Your task to perform on an android device: set the timer Image 0: 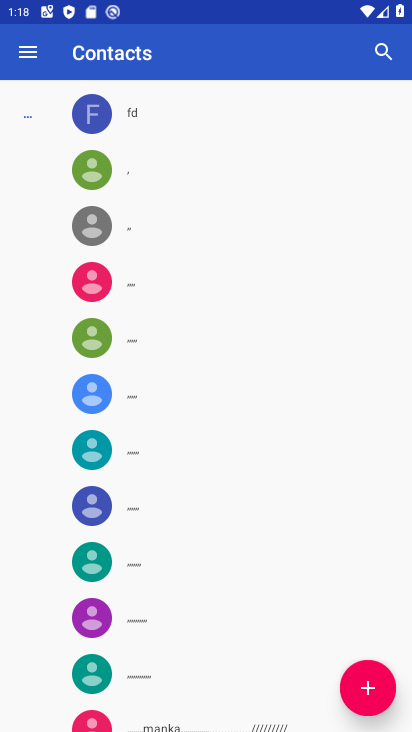
Step 0: press home button
Your task to perform on an android device: set the timer Image 1: 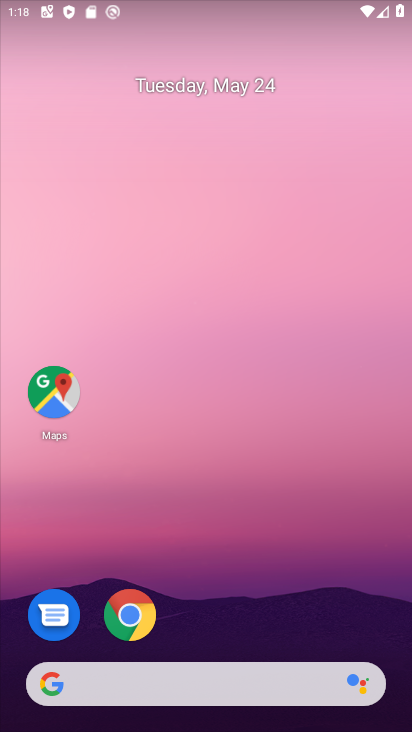
Step 1: drag from (214, 149) to (214, 44)
Your task to perform on an android device: set the timer Image 2: 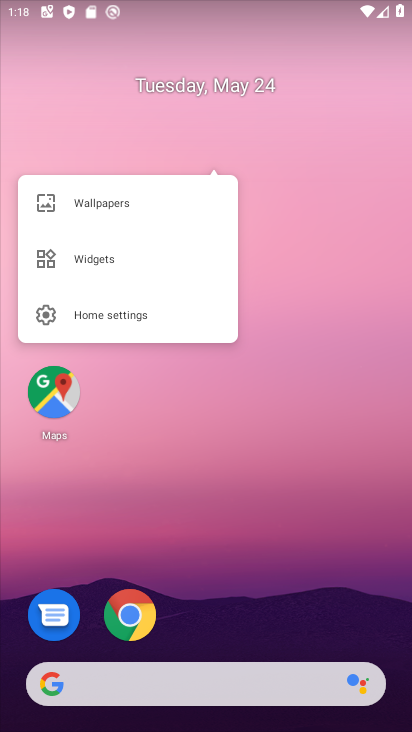
Step 2: click (248, 612)
Your task to perform on an android device: set the timer Image 3: 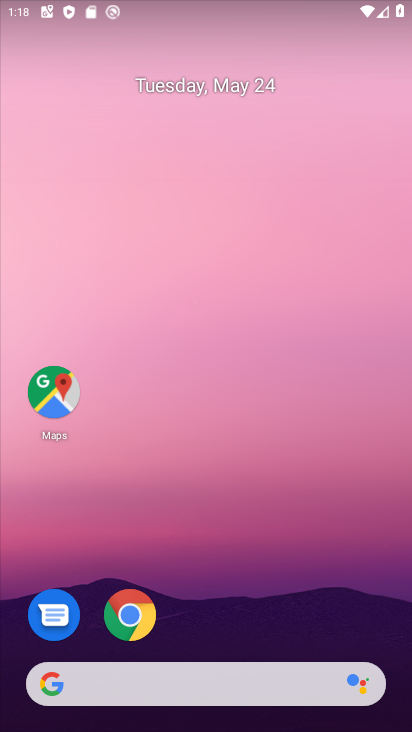
Step 3: drag from (215, 634) to (236, 59)
Your task to perform on an android device: set the timer Image 4: 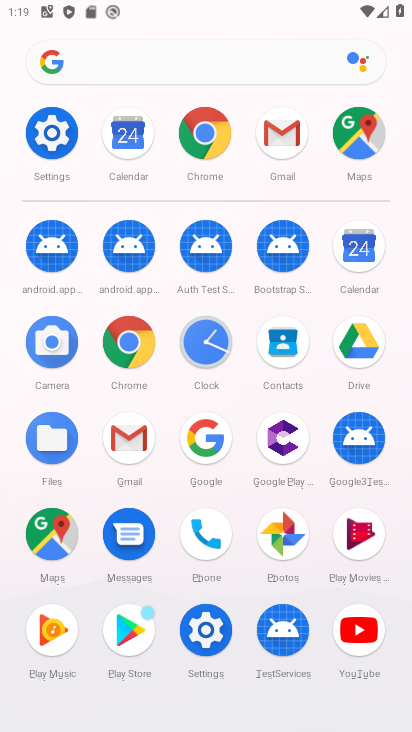
Step 4: click (200, 333)
Your task to perform on an android device: set the timer Image 5: 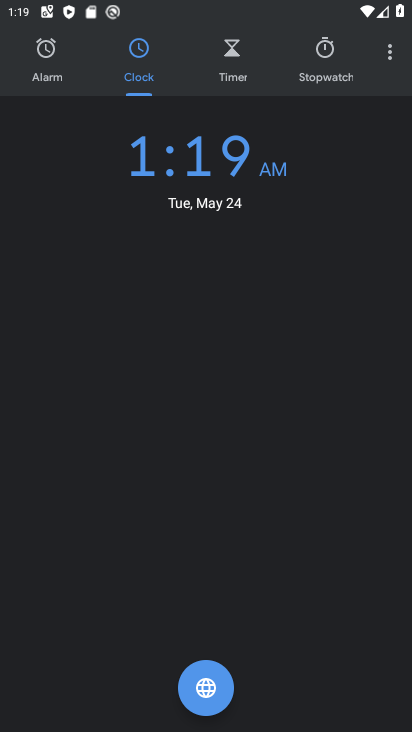
Step 5: click (227, 54)
Your task to perform on an android device: set the timer Image 6: 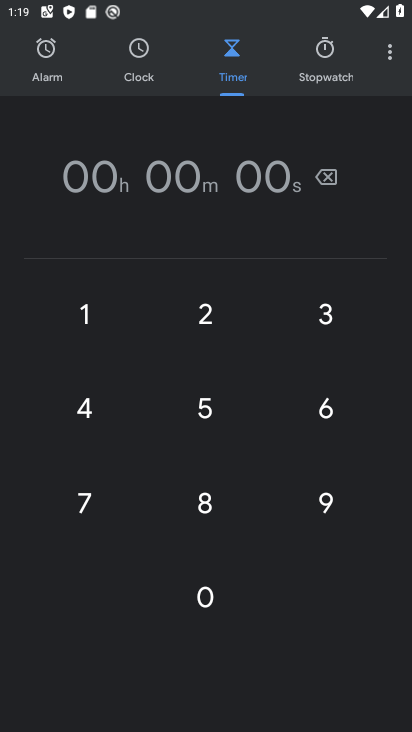
Step 6: click (206, 311)
Your task to perform on an android device: set the timer Image 7: 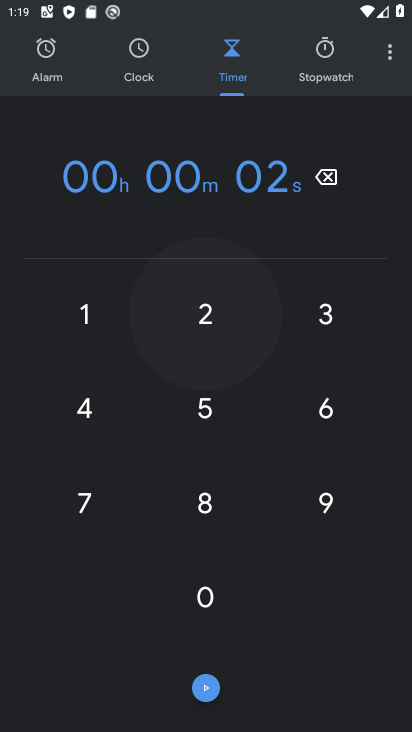
Step 7: click (215, 594)
Your task to perform on an android device: set the timer Image 8: 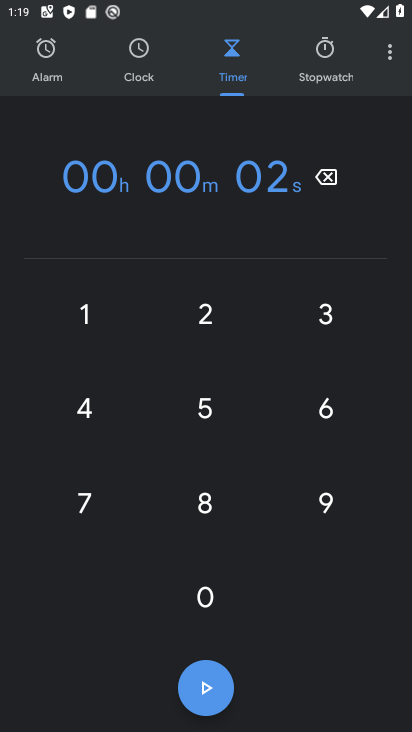
Step 8: click (215, 594)
Your task to perform on an android device: set the timer Image 9: 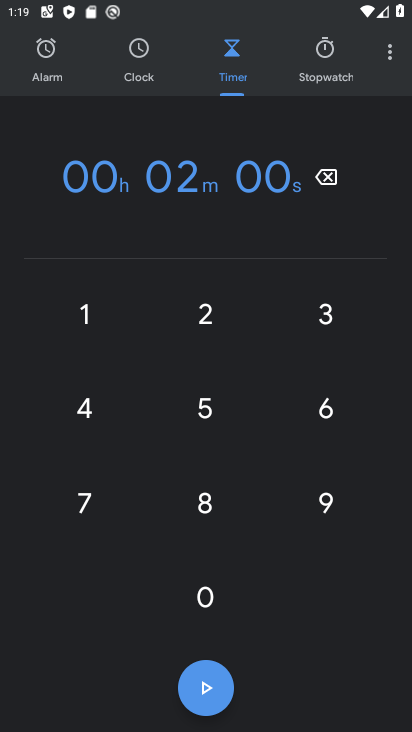
Step 9: click (215, 594)
Your task to perform on an android device: set the timer Image 10: 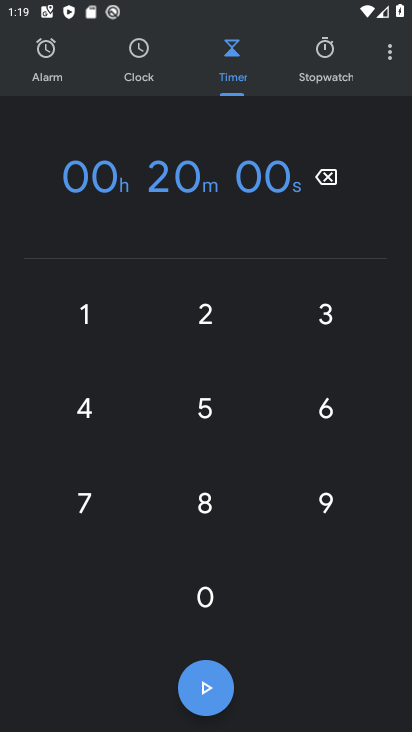
Step 10: click (200, 687)
Your task to perform on an android device: set the timer Image 11: 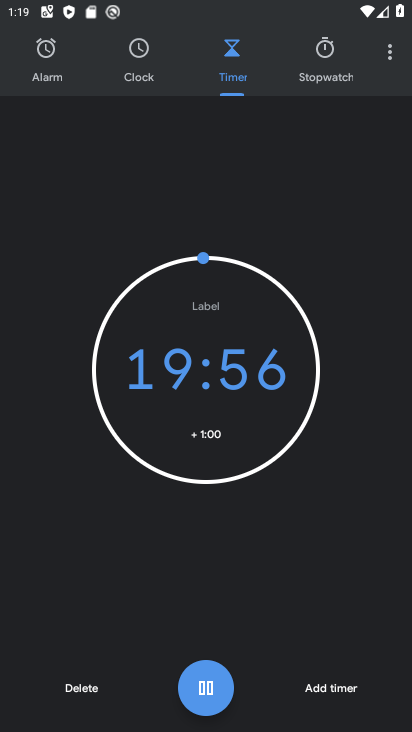
Step 11: task complete